Your task to perform on an android device: toggle airplane mode Image 0: 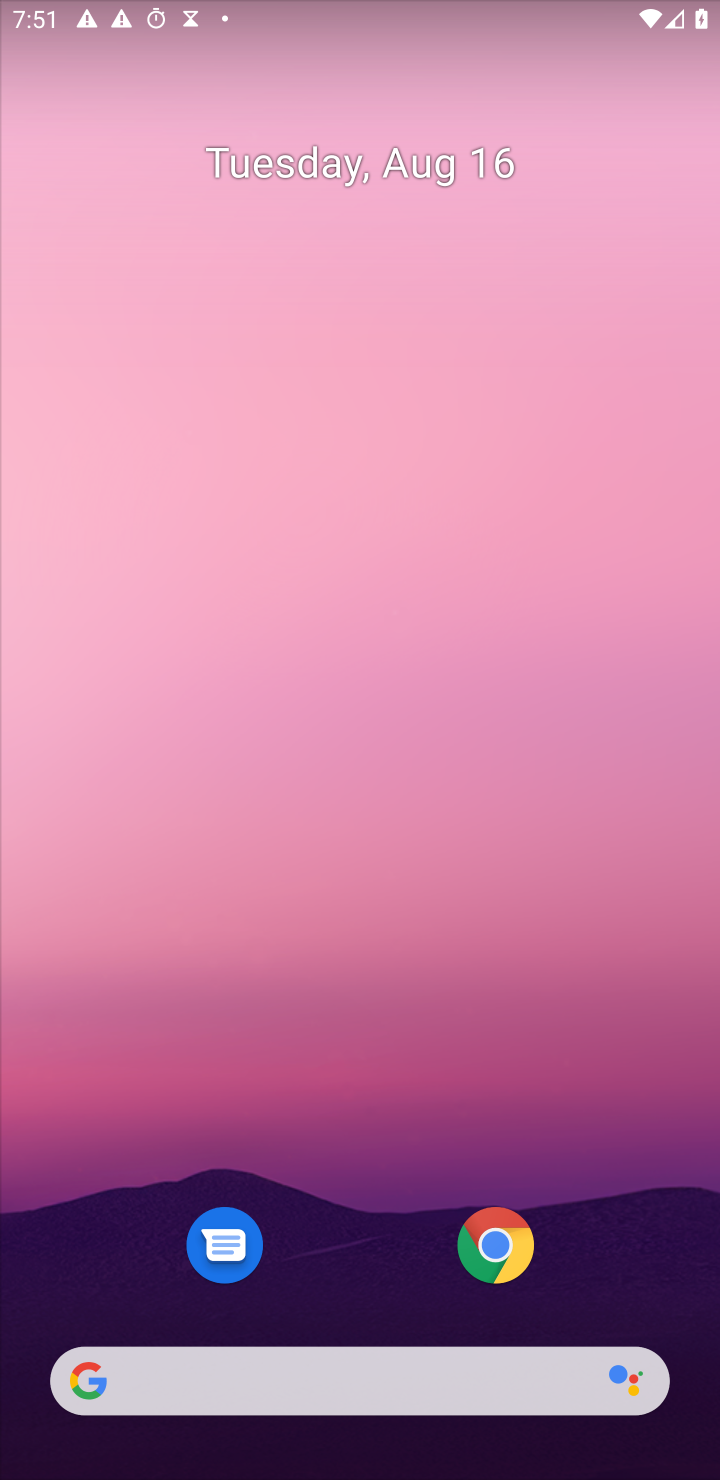
Step 0: press home button
Your task to perform on an android device: toggle airplane mode Image 1: 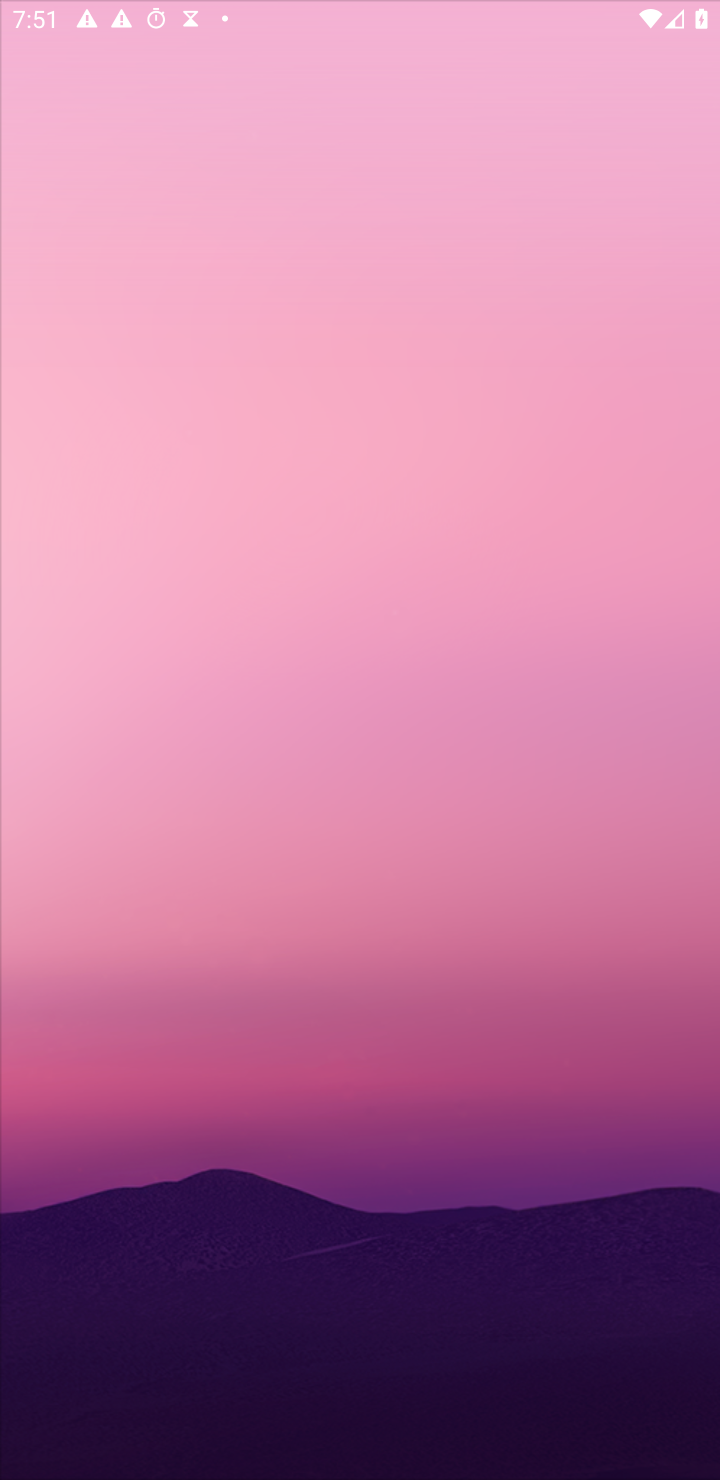
Step 1: press home button
Your task to perform on an android device: toggle airplane mode Image 2: 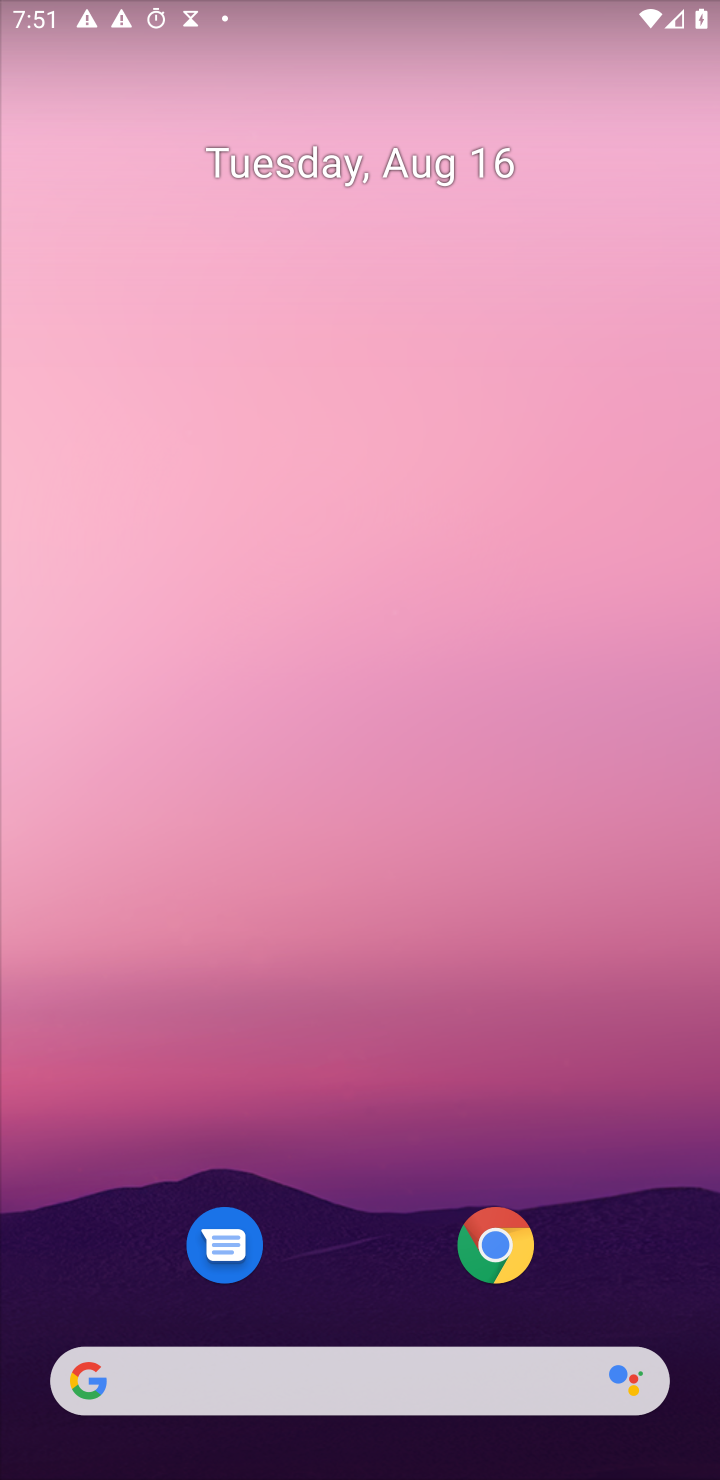
Step 2: drag from (518, 10) to (466, 1412)
Your task to perform on an android device: toggle airplane mode Image 3: 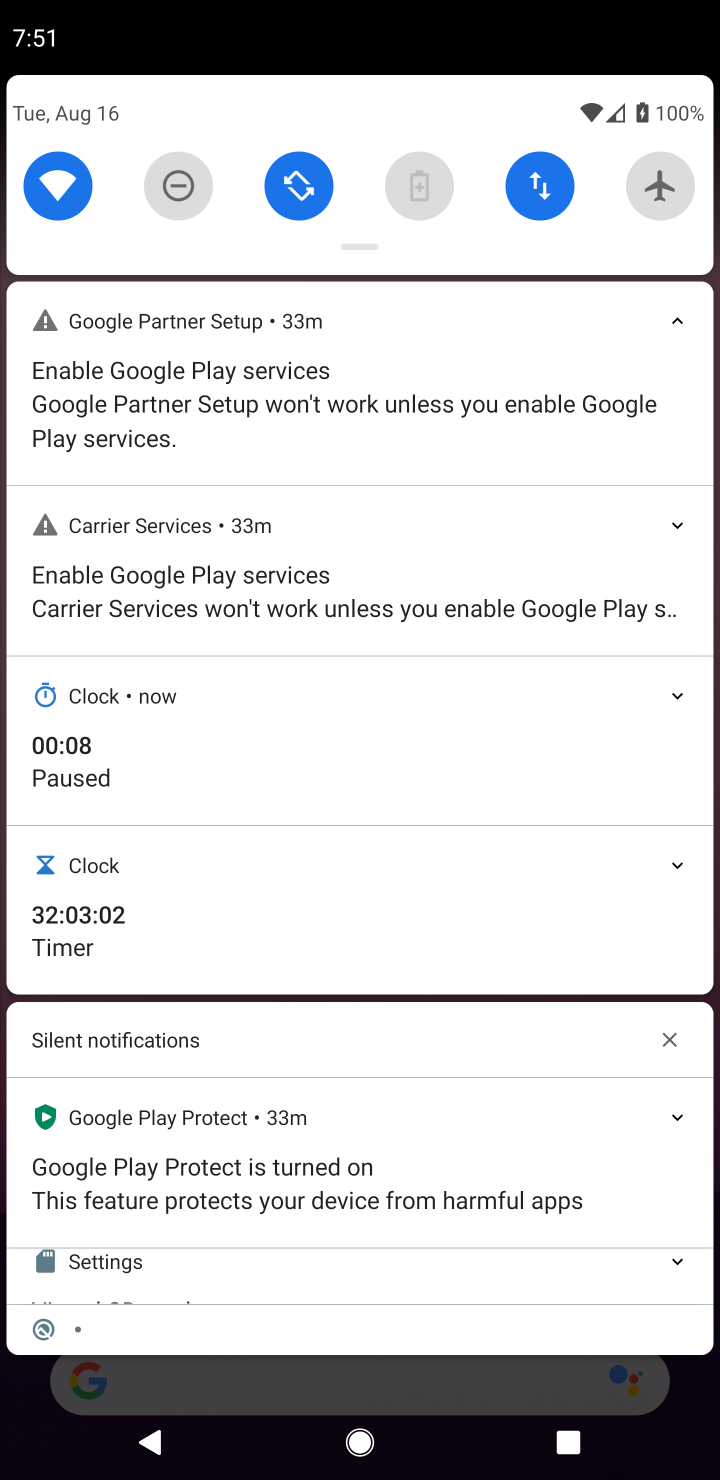
Step 3: click (659, 185)
Your task to perform on an android device: toggle airplane mode Image 4: 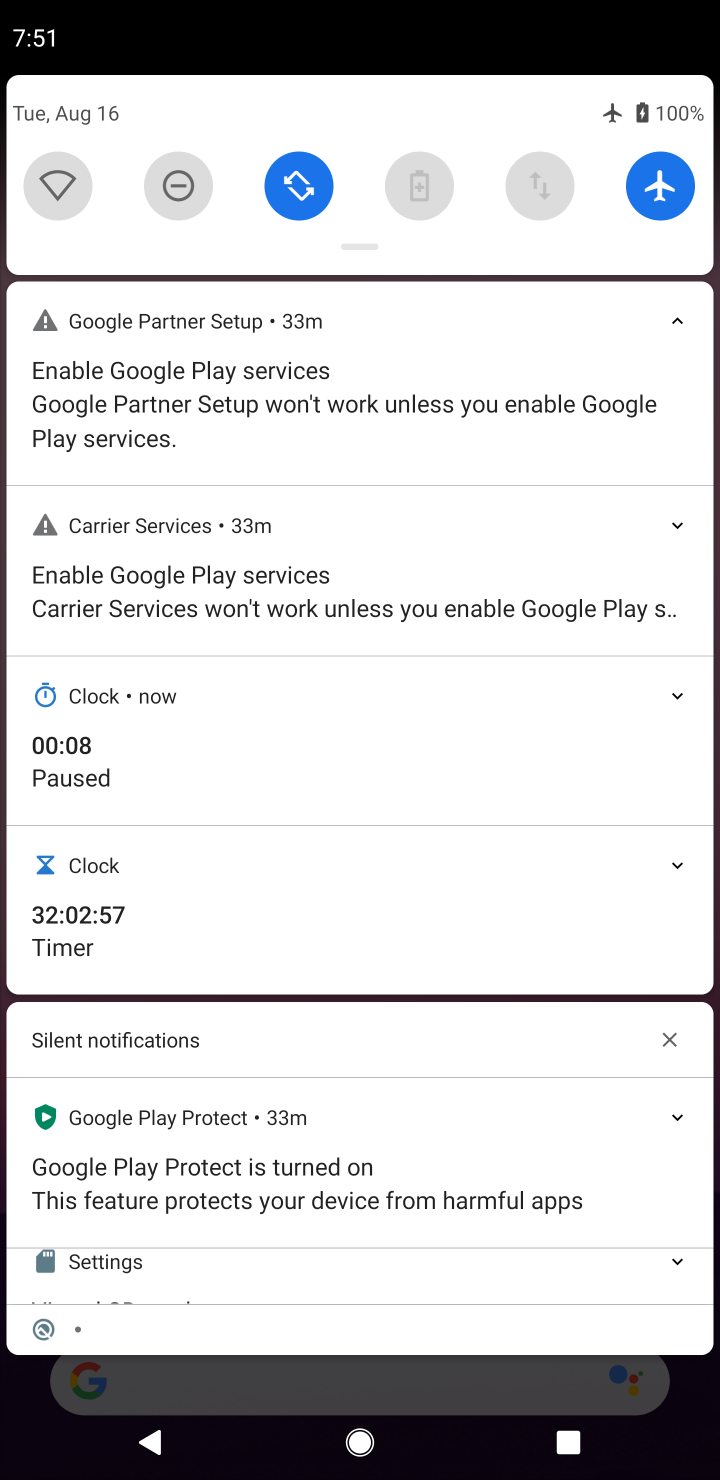
Step 4: task complete